Your task to perform on an android device: open app "Pandora - Music & Podcasts" Image 0: 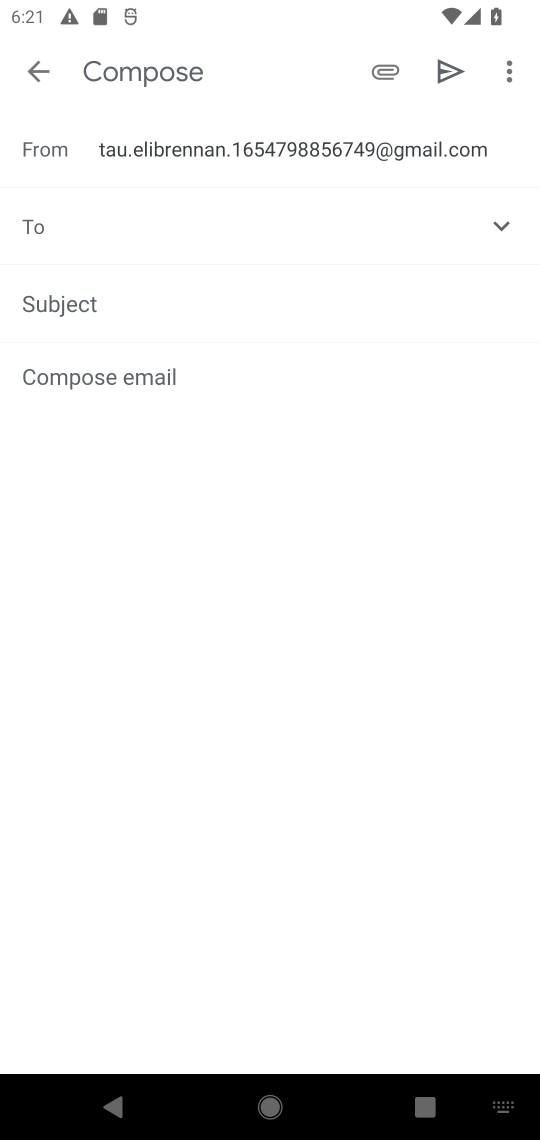
Step 0: press home button
Your task to perform on an android device: open app "Pandora - Music & Podcasts" Image 1: 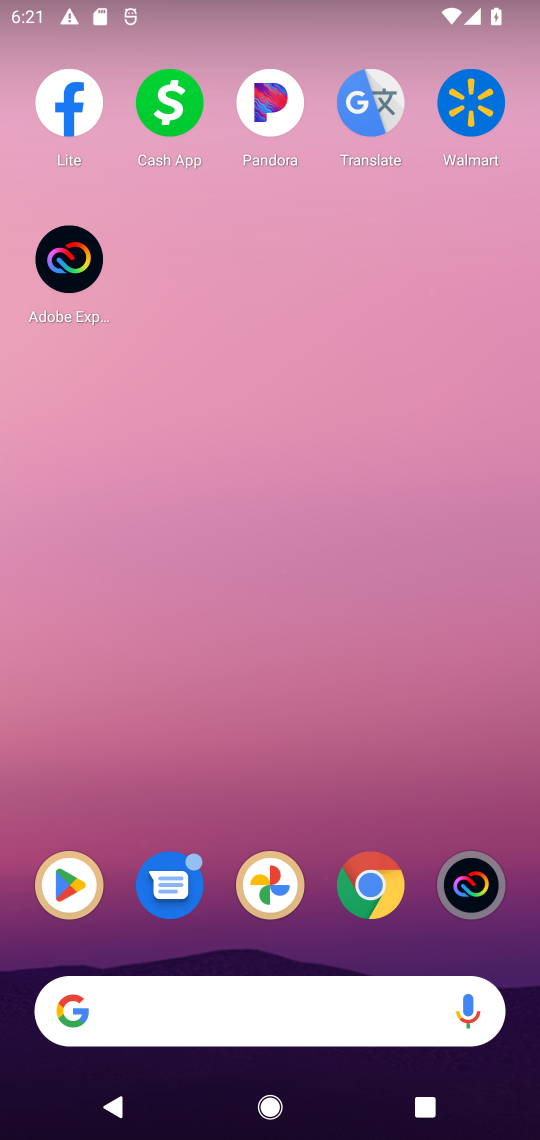
Step 1: drag from (415, 765) to (434, 130)
Your task to perform on an android device: open app "Pandora - Music & Podcasts" Image 2: 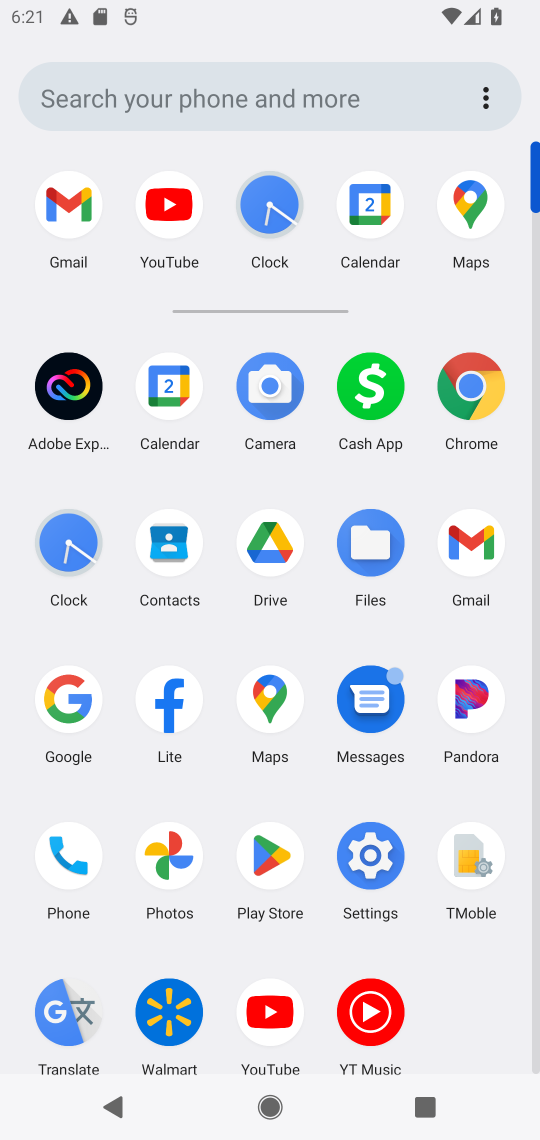
Step 2: click (270, 864)
Your task to perform on an android device: open app "Pandora - Music & Podcasts" Image 3: 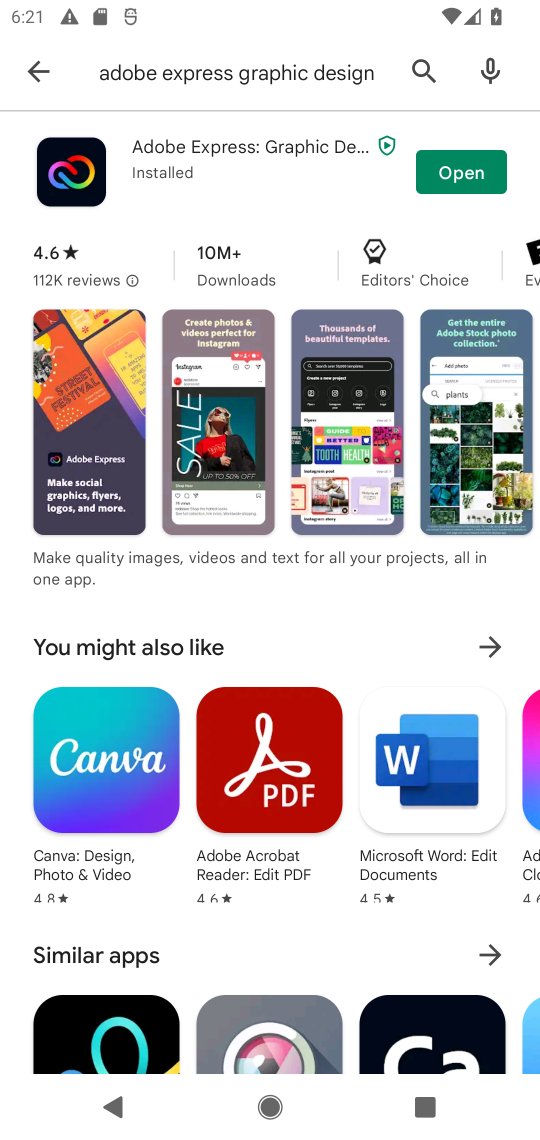
Step 3: click (420, 71)
Your task to perform on an android device: open app "Pandora - Music & Podcasts" Image 4: 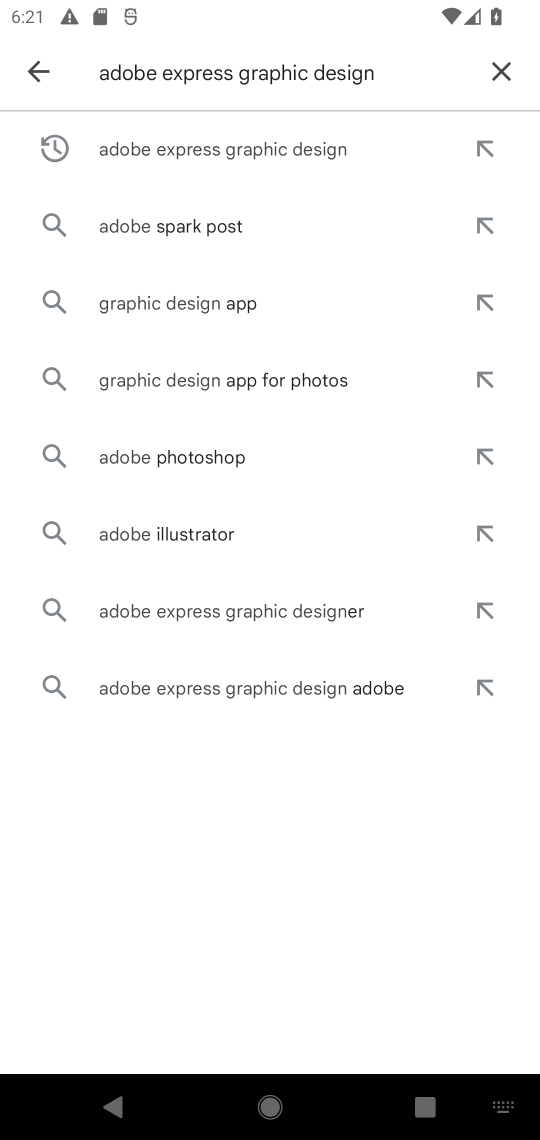
Step 4: click (492, 70)
Your task to perform on an android device: open app "Pandora - Music & Podcasts" Image 5: 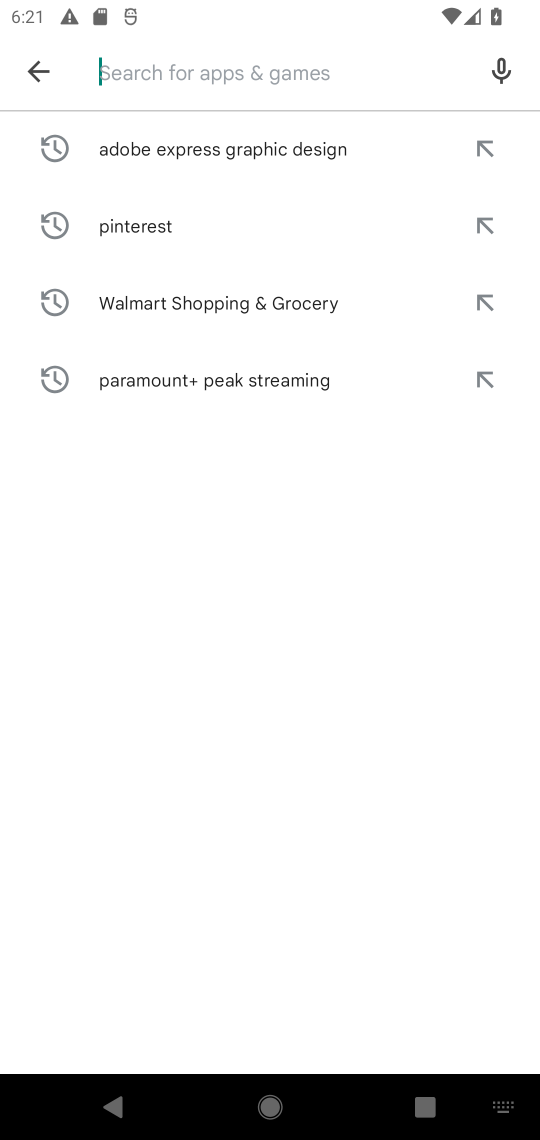
Step 5: click (345, 76)
Your task to perform on an android device: open app "Pandora - Music & Podcasts" Image 6: 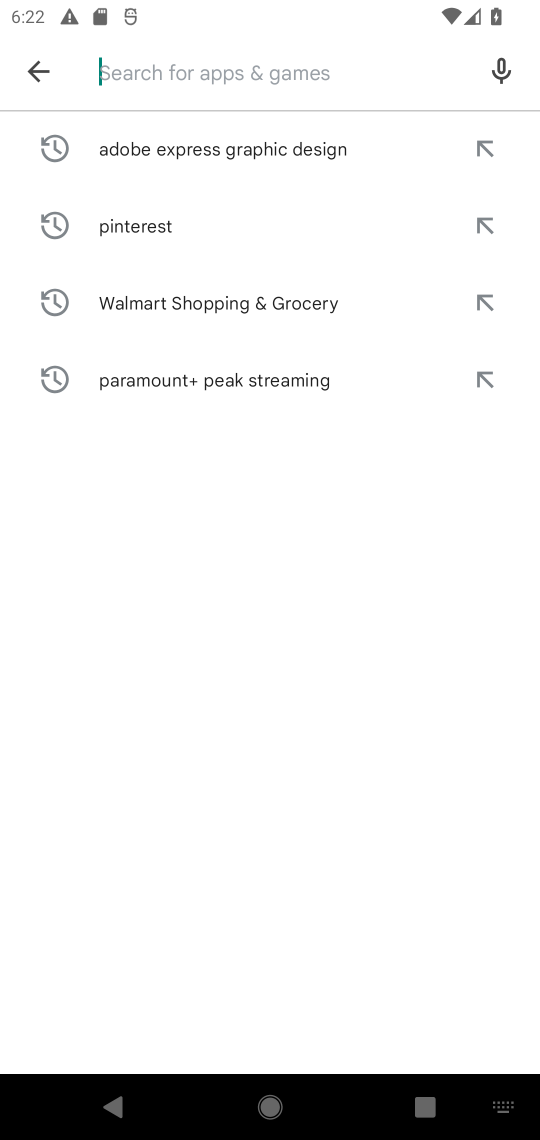
Step 6: type "Pandora - Music & Podcasts"
Your task to perform on an android device: open app "Pandora - Music & Podcasts" Image 7: 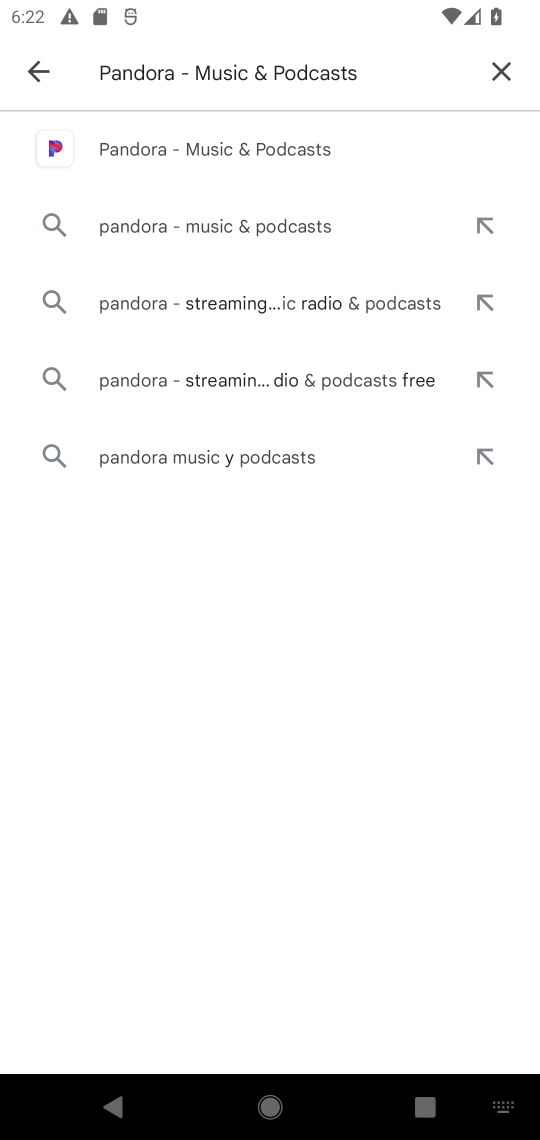
Step 7: click (296, 141)
Your task to perform on an android device: open app "Pandora - Music & Podcasts" Image 8: 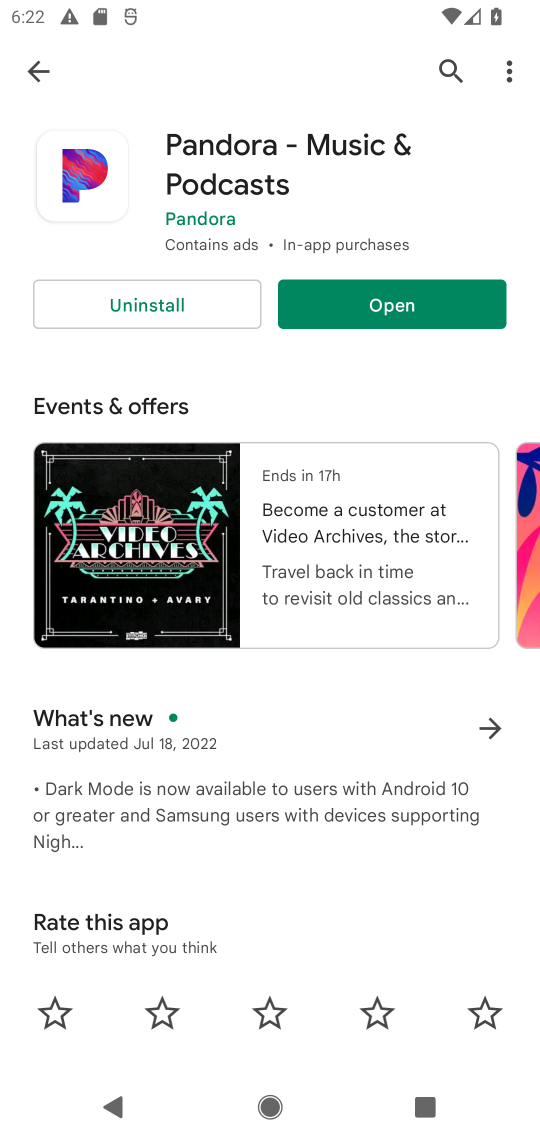
Step 8: click (439, 293)
Your task to perform on an android device: open app "Pandora - Music & Podcasts" Image 9: 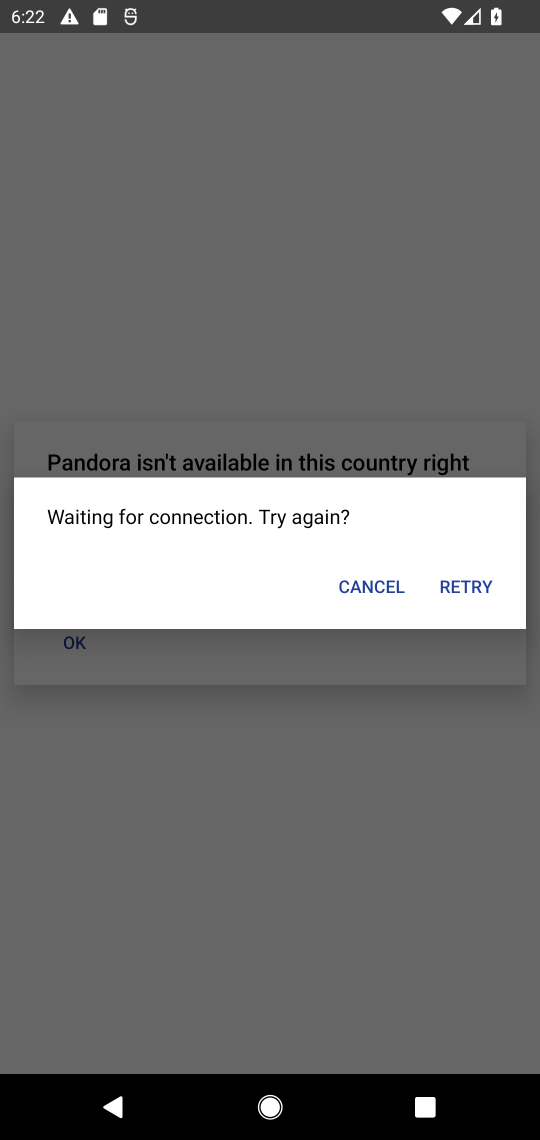
Step 9: task complete